Your task to perform on an android device: Go to eBay Image 0: 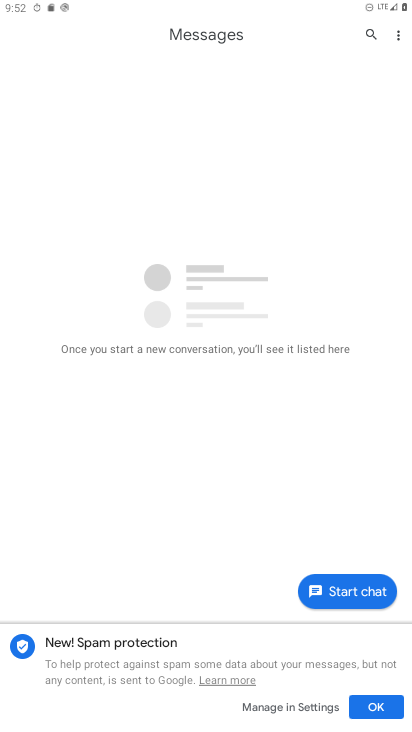
Step 0: press home button
Your task to perform on an android device: Go to eBay Image 1: 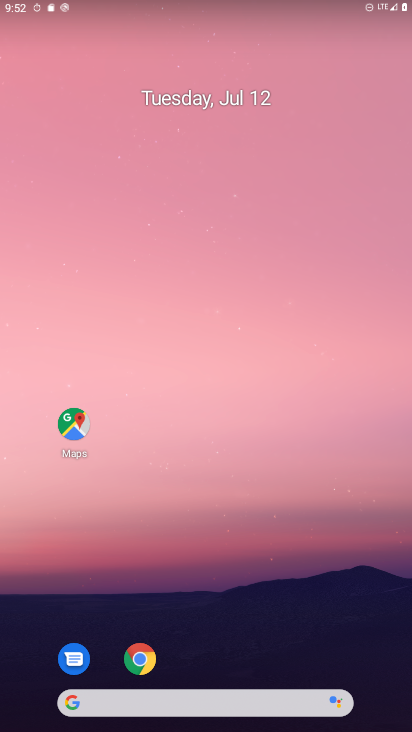
Step 1: drag from (385, 628) to (230, 1)
Your task to perform on an android device: Go to eBay Image 2: 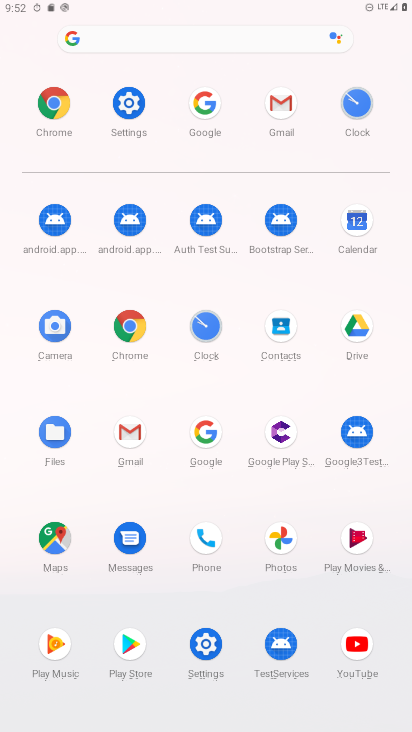
Step 2: click (205, 423)
Your task to perform on an android device: Go to eBay Image 3: 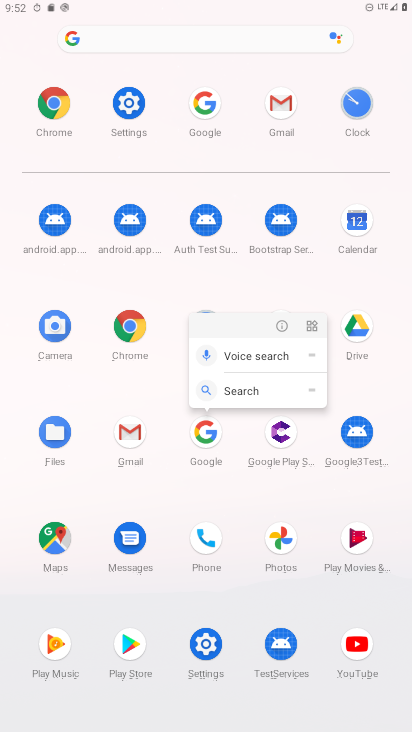
Step 3: click (205, 423)
Your task to perform on an android device: Go to eBay Image 4: 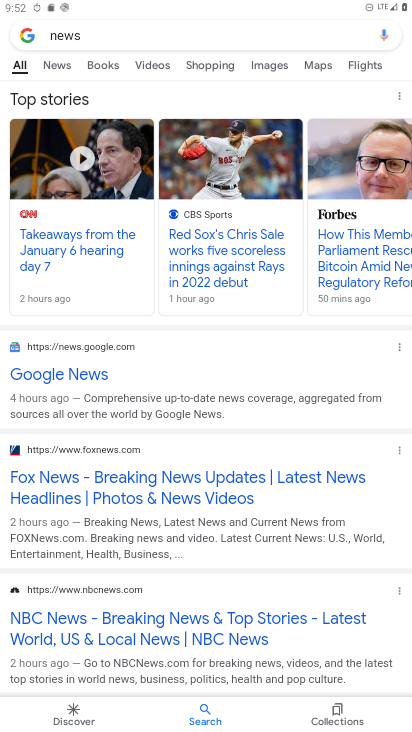
Step 4: press back button
Your task to perform on an android device: Go to eBay Image 5: 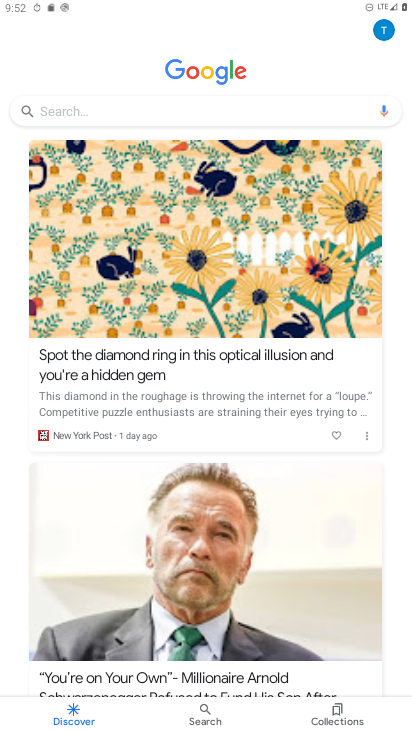
Step 5: click (99, 89)
Your task to perform on an android device: Go to eBay Image 6: 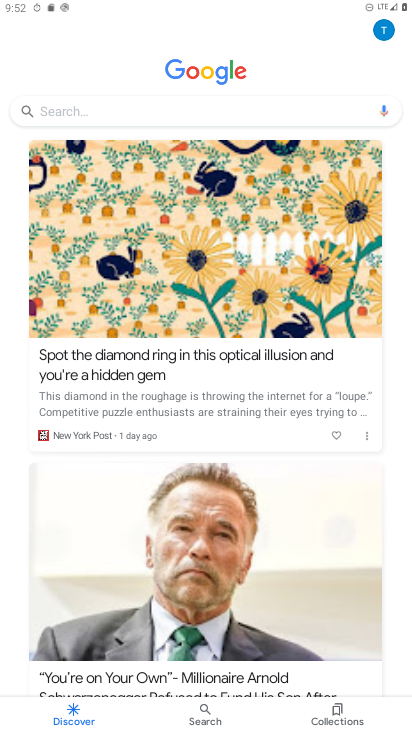
Step 6: click (81, 101)
Your task to perform on an android device: Go to eBay Image 7: 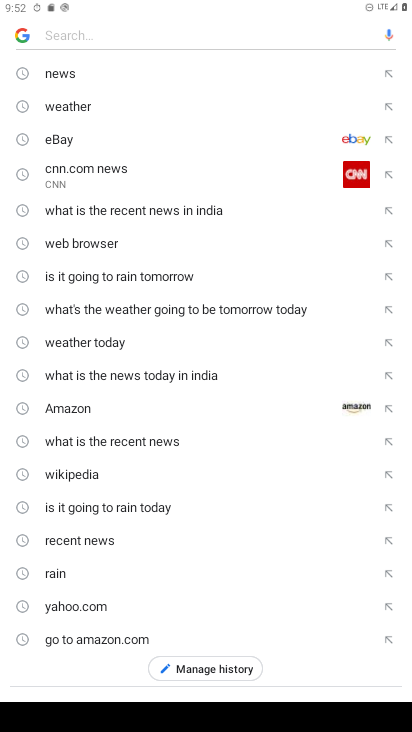
Step 7: click (67, 142)
Your task to perform on an android device: Go to eBay Image 8: 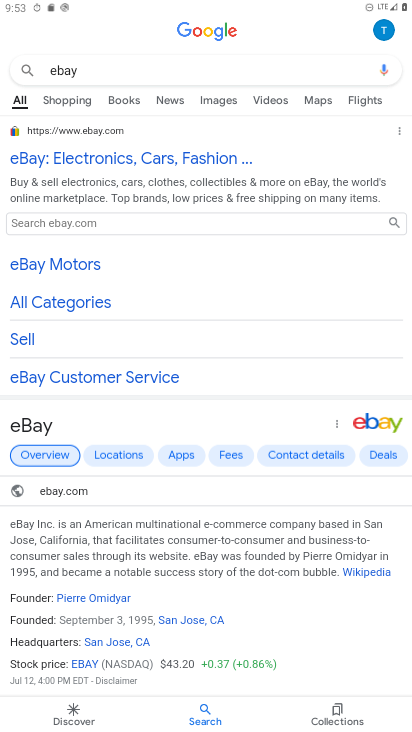
Step 8: task complete